Your task to perform on an android device: Open the phone app and click the voicemail tab. Image 0: 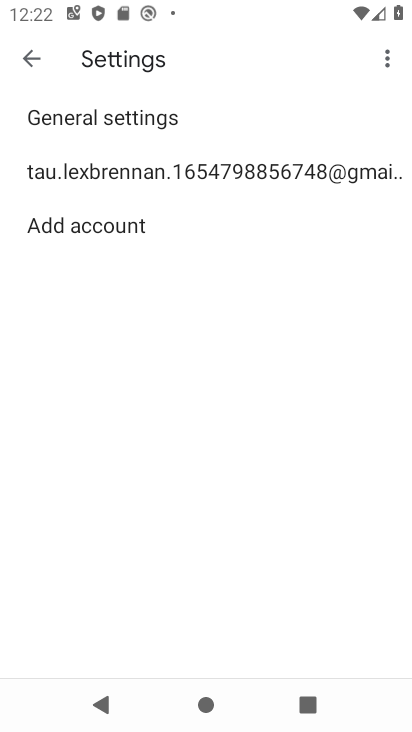
Step 0: press home button
Your task to perform on an android device: Open the phone app and click the voicemail tab. Image 1: 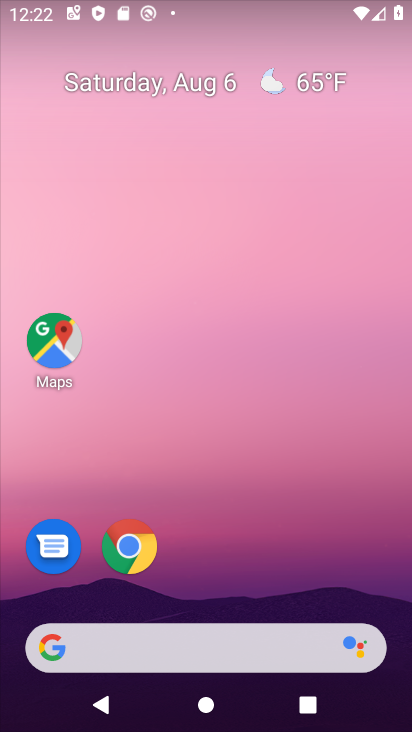
Step 1: drag from (244, 591) to (257, 0)
Your task to perform on an android device: Open the phone app and click the voicemail tab. Image 2: 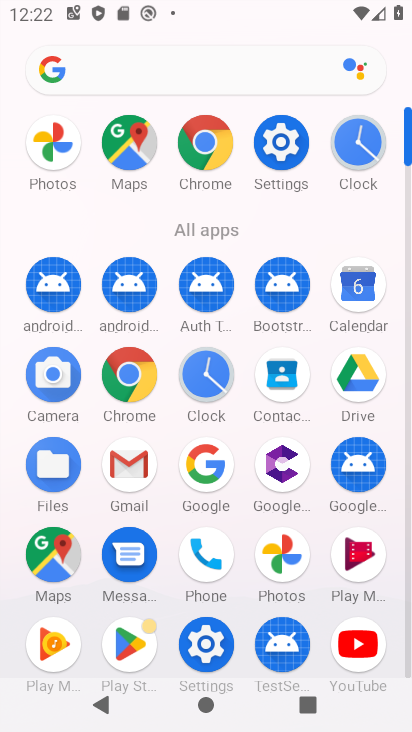
Step 2: click (200, 573)
Your task to perform on an android device: Open the phone app and click the voicemail tab. Image 3: 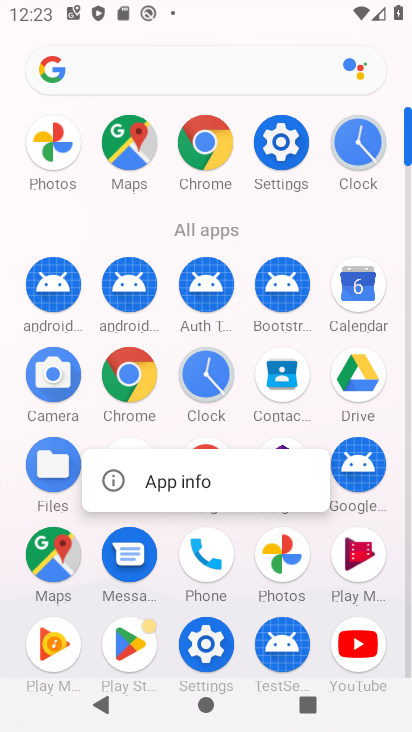
Step 3: click (195, 553)
Your task to perform on an android device: Open the phone app and click the voicemail tab. Image 4: 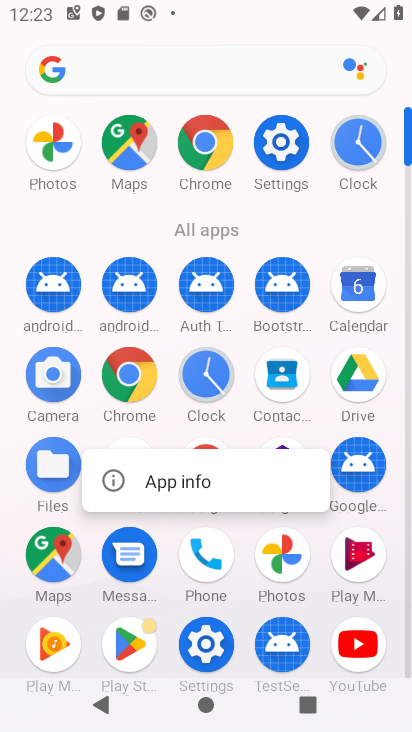
Step 4: click (209, 549)
Your task to perform on an android device: Open the phone app and click the voicemail tab. Image 5: 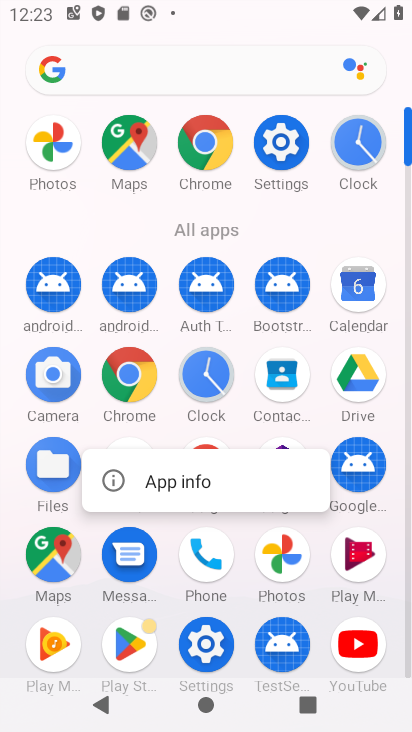
Step 5: click (209, 549)
Your task to perform on an android device: Open the phone app and click the voicemail tab. Image 6: 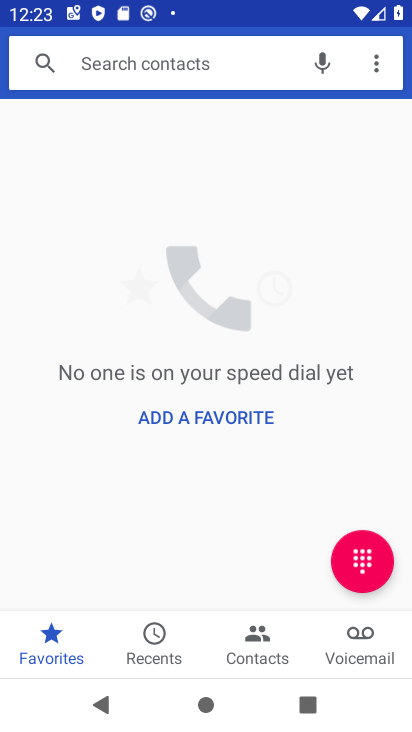
Step 6: click (384, 646)
Your task to perform on an android device: Open the phone app and click the voicemail tab. Image 7: 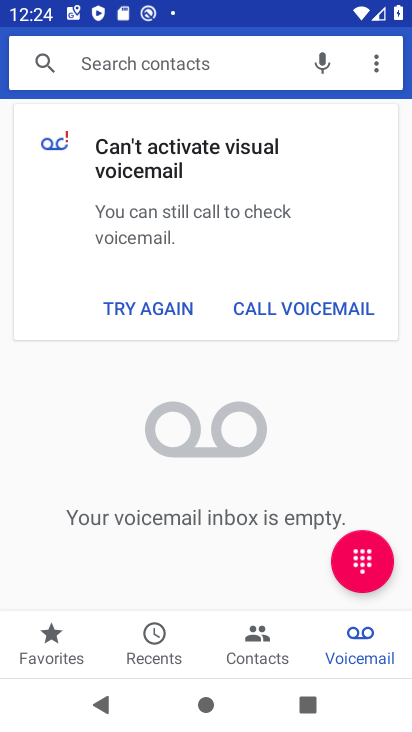
Step 7: task complete